Your task to perform on an android device: Open Chrome and go to the settings page Image 0: 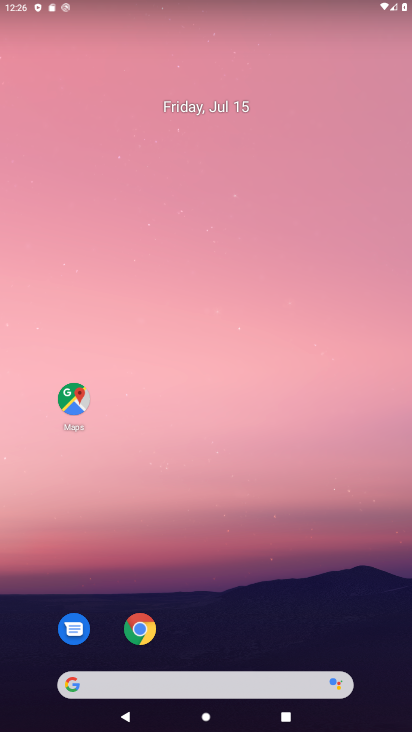
Step 0: click (146, 632)
Your task to perform on an android device: Open Chrome and go to the settings page Image 1: 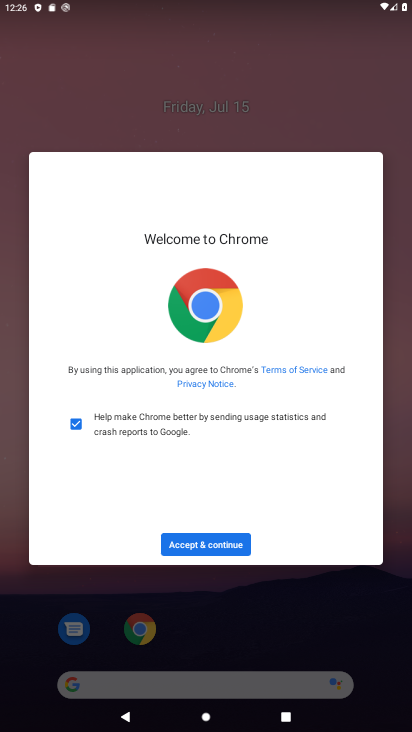
Step 1: click (204, 546)
Your task to perform on an android device: Open Chrome and go to the settings page Image 2: 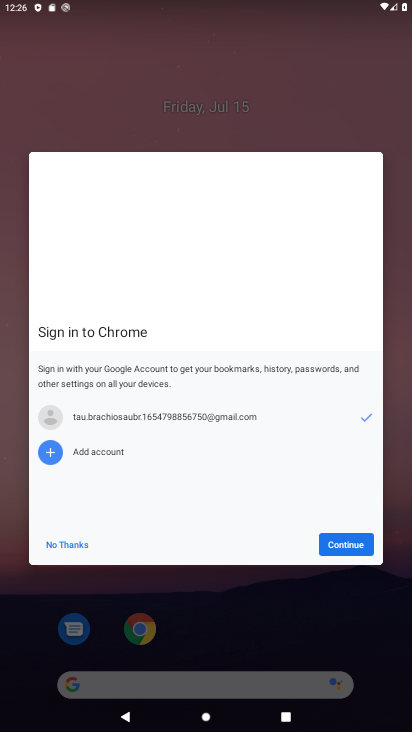
Step 2: click (367, 545)
Your task to perform on an android device: Open Chrome and go to the settings page Image 3: 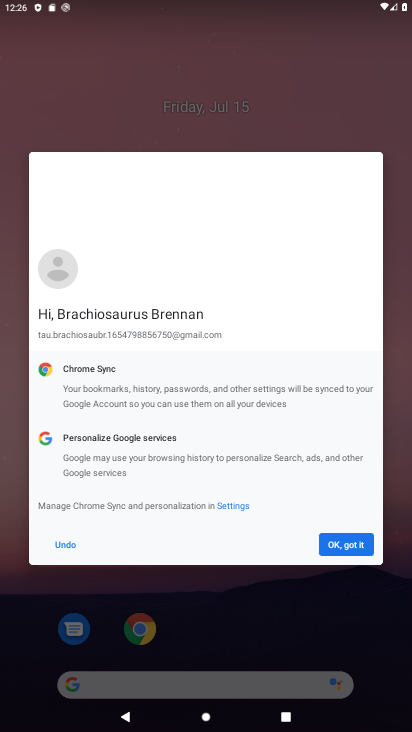
Step 3: click (358, 549)
Your task to perform on an android device: Open Chrome and go to the settings page Image 4: 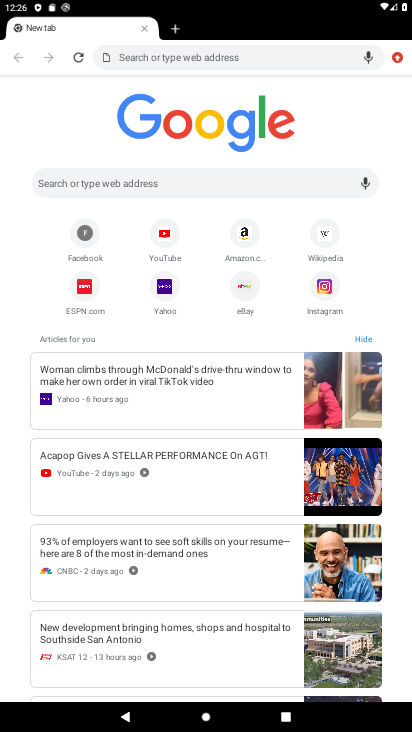
Step 4: click (396, 60)
Your task to perform on an android device: Open Chrome and go to the settings page Image 5: 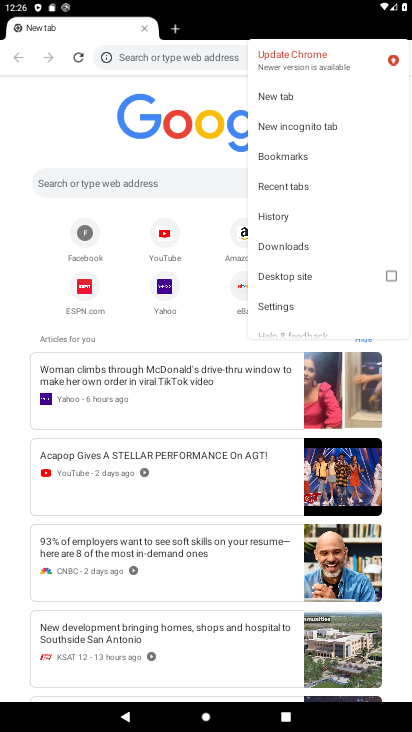
Step 5: click (288, 302)
Your task to perform on an android device: Open Chrome and go to the settings page Image 6: 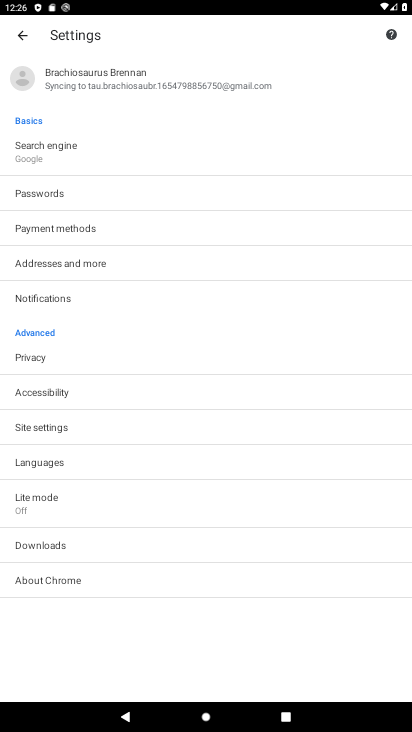
Step 6: task complete